Your task to perform on an android device: Open Android settings Image 0: 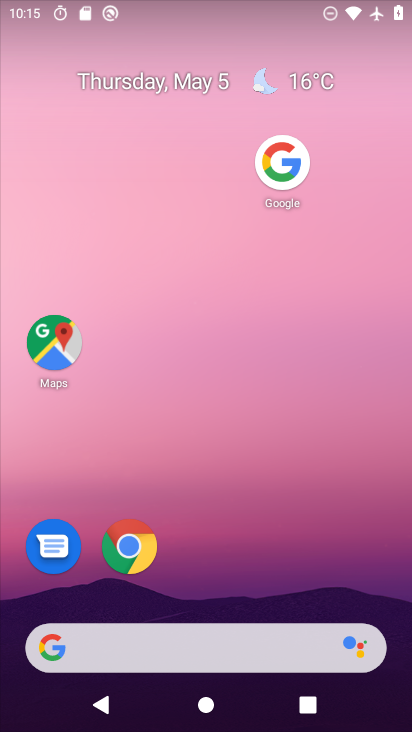
Step 0: drag from (152, 649) to (343, 67)
Your task to perform on an android device: Open Android settings Image 1: 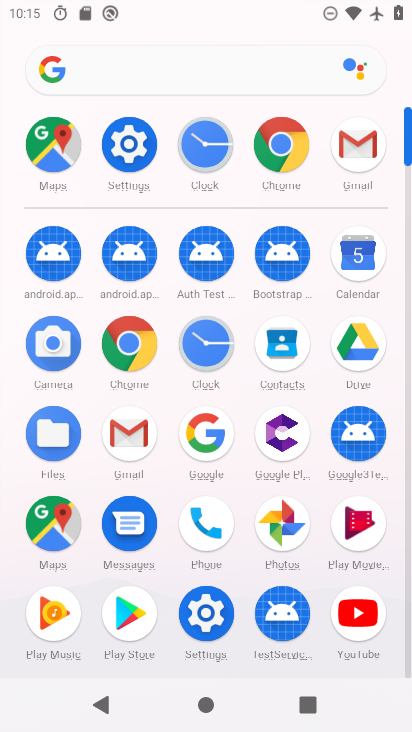
Step 1: click (126, 149)
Your task to perform on an android device: Open Android settings Image 2: 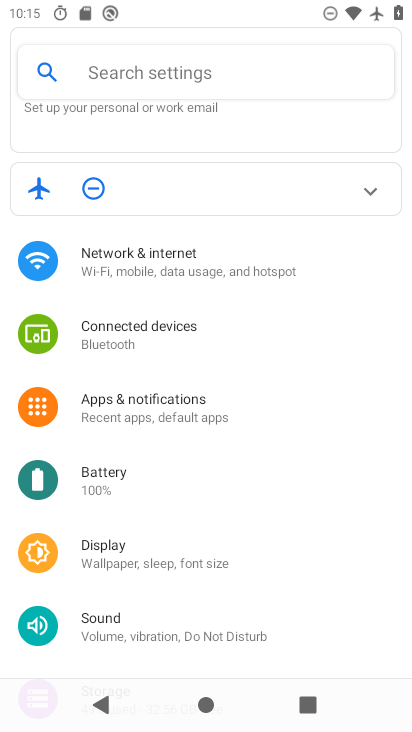
Step 2: drag from (250, 565) to (314, 133)
Your task to perform on an android device: Open Android settings Image 3: 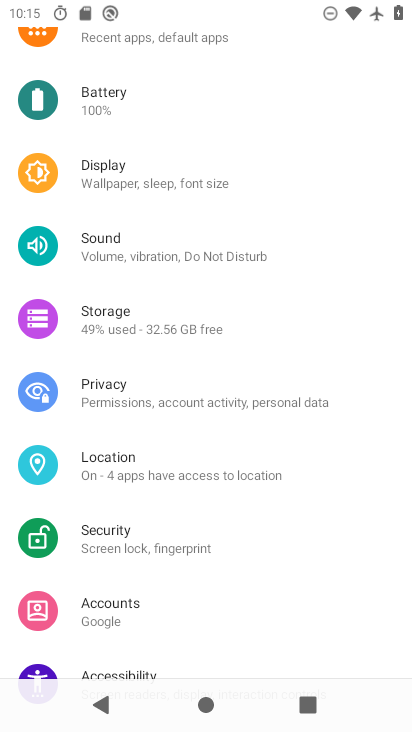
Step 3: drag from (203, 647) to (336, 191)
Your task to perform on an android device: Open Android settings Image 4: 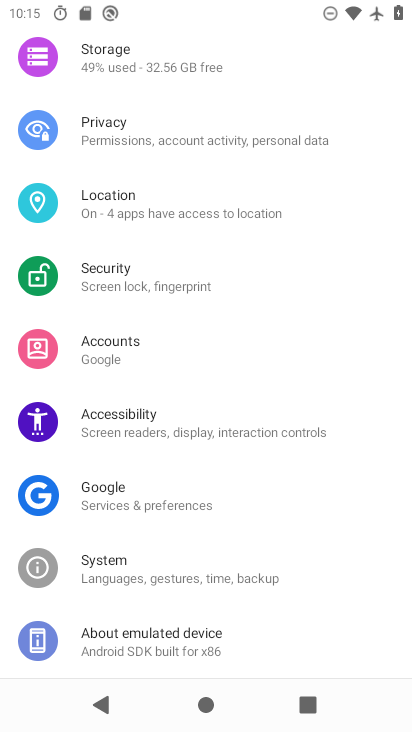
Step 4: click (154, 633)
Your task to perform on an android device: Open Android settings Image 5: 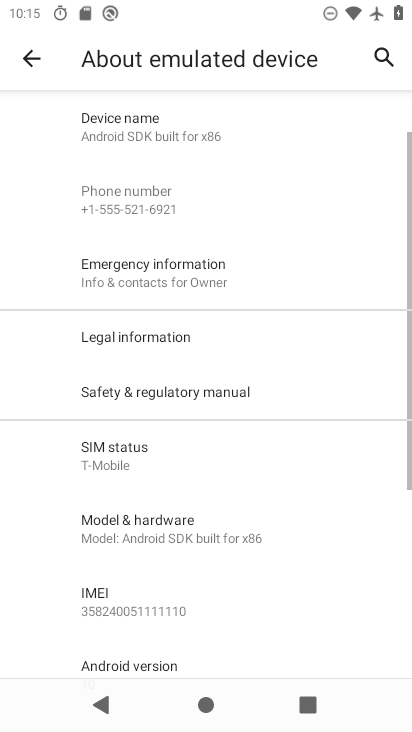
Step 5: drag from (161, 648) to (254, 120)
Your task to perform on an android device: Open Android settings Image 6: 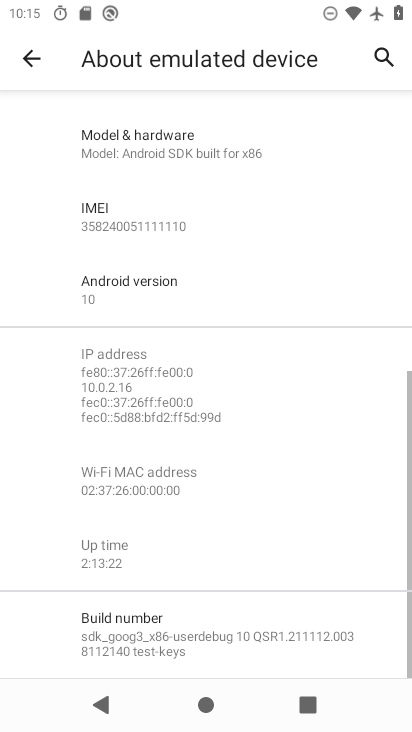
Step 6: click (133, 279)
Your task to perform on an android device: Open Android settings Image 7: 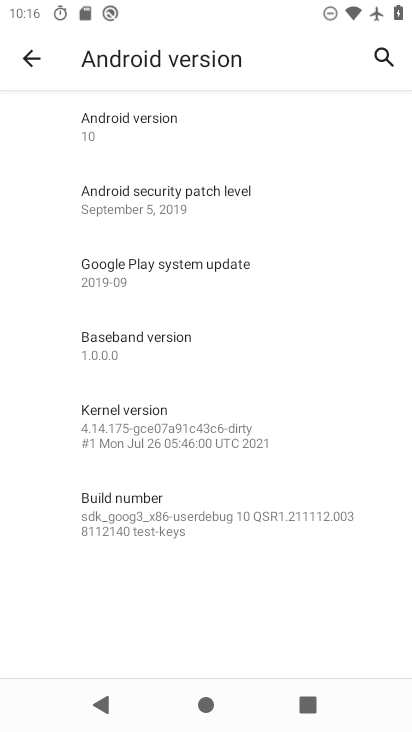
Step 7: task complete